Your task to perform on an android device: turn off javascript in the chrome app Image 0: 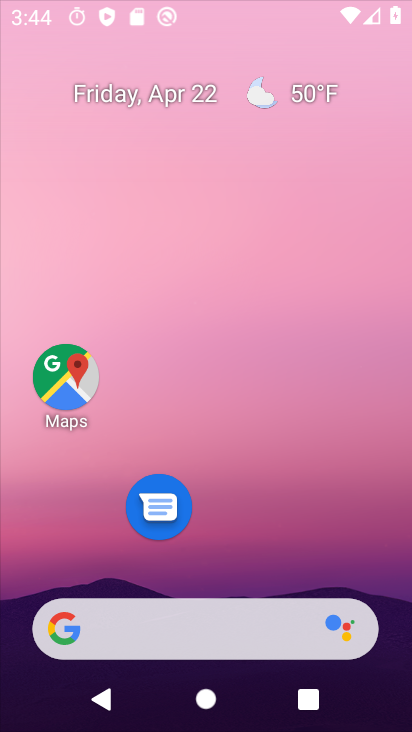
Step 0: drag from (215, 540) to (326, 34)
Your task to perform on an android device: turn off javascript in the chrome app Image 1: 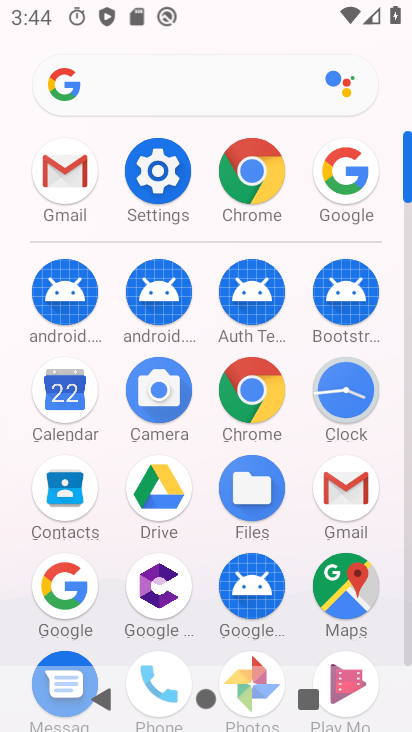
Step 1: click (252, 186)
Your task to perform on an android device: turn off javascript in the chrome app Image 2: 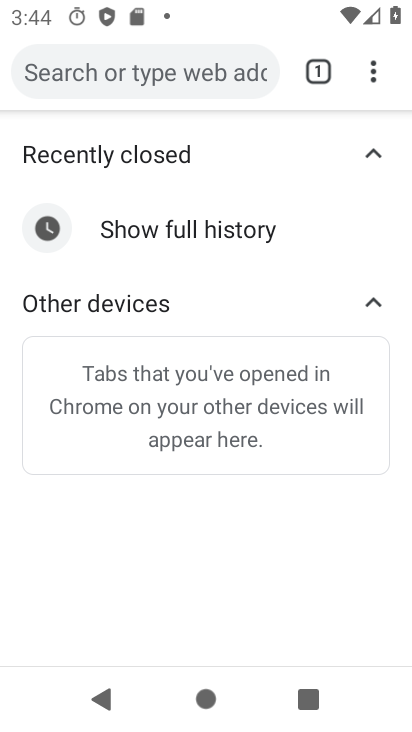
Step 2: drag from (368, 68) to (159, 495)
Your task to perform on an android device: turn off javascript in the chrome app Image 3: 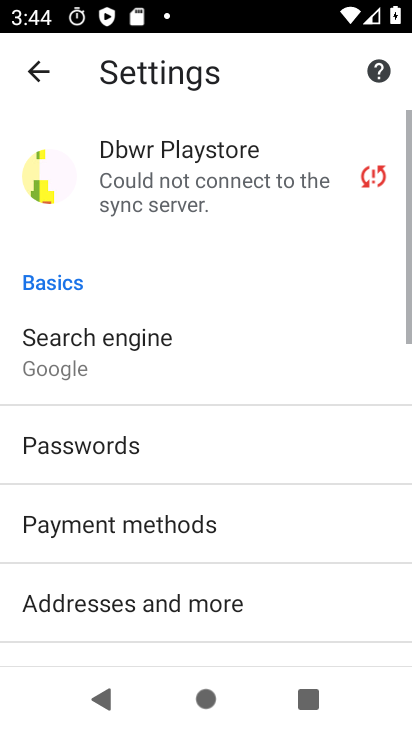
Step 3: drag from (170, 602) to (270, 61)
Your task to perform on an android device: turn off javascript in the chrome app Image 4: 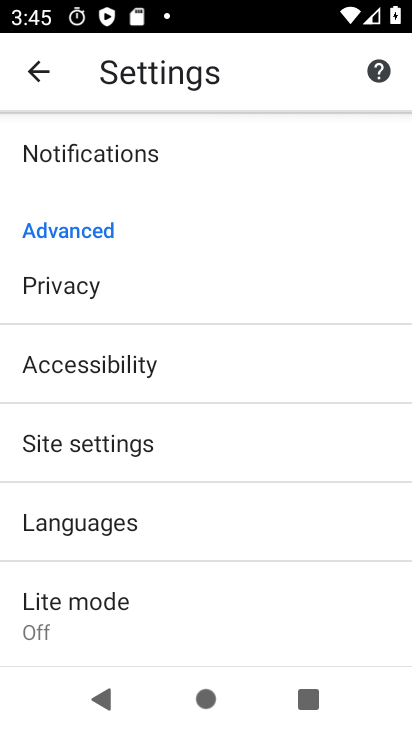
Step 4: click (98, 433)
Your task to perform on an android device: turn off javascript in the chrome app Image 5: 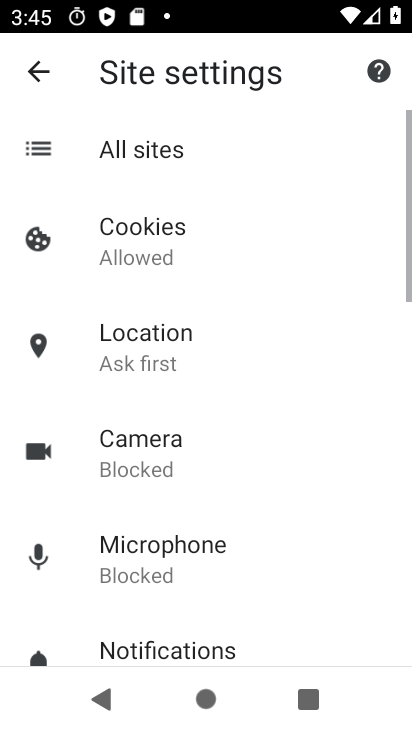
Step 5: drag from (195, 613) to (284, 93)
Your task to perform on an android device: turn off javascript in the chrome app Image 6: 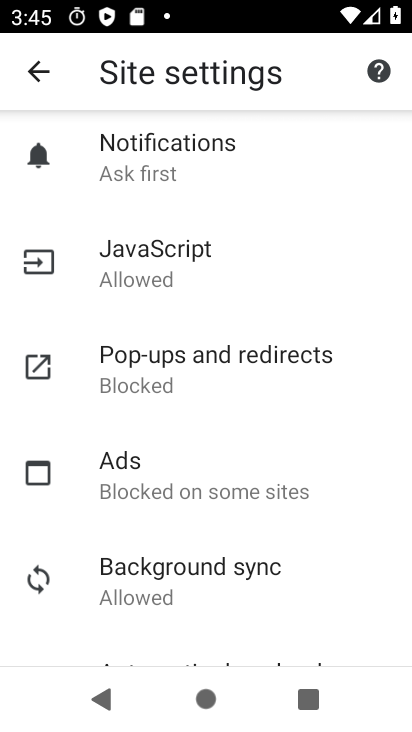
Step 6: click (146, 268)
Your task to perform on an android device: turn off javascript in the chrome app Image 7: 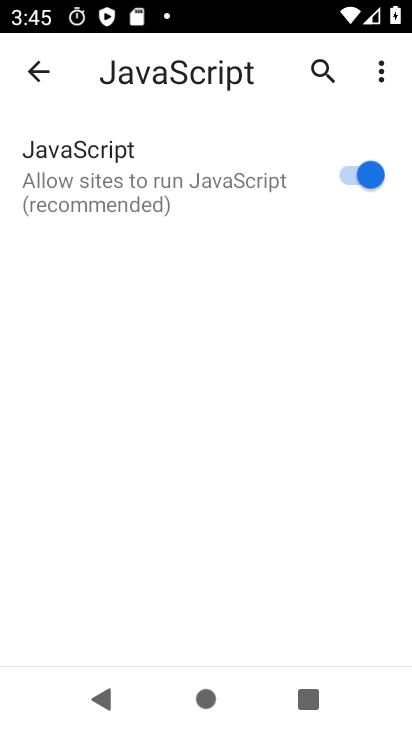
Step 7: click (362, 174)
Your task to perform on an android device: turn off javascript in the chrome app Image 8: 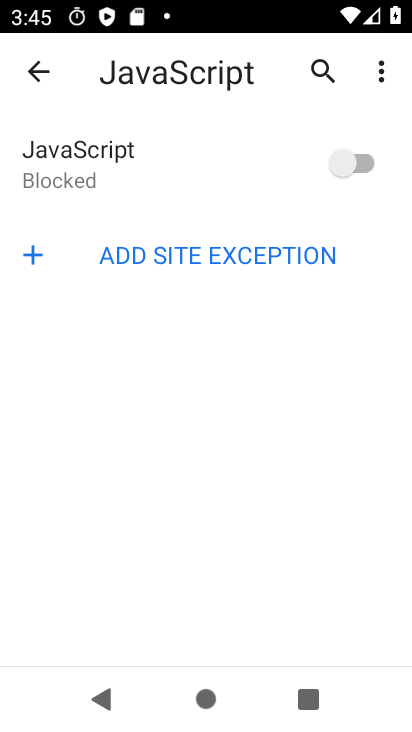
Step 8: task complete